Your task to perform on an android device: check battery use Image 0: 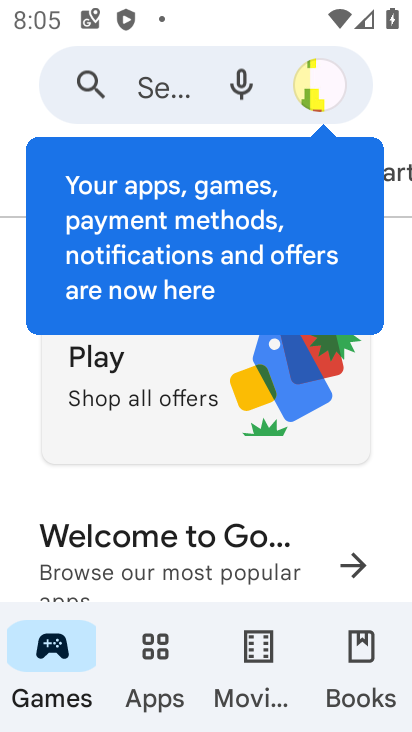
Step 0: press back button
Your task to perform on an android device: check battery use Image 1: 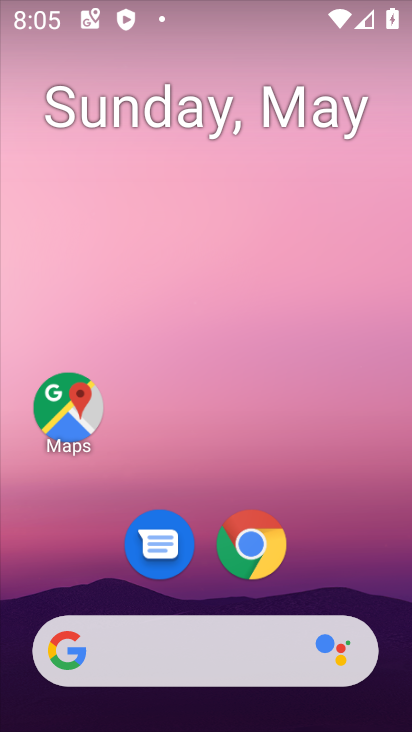
Step 1: drag from (320, 569) to (282, 4)
Your task to perform on an android device: check battery use Image 2: 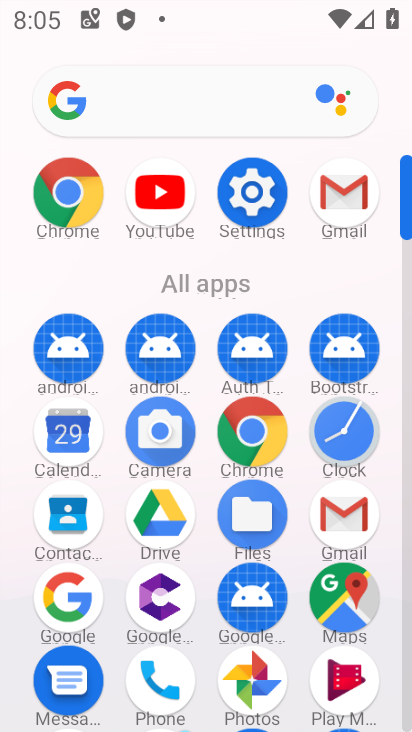
Step 2: drag from (5, 543) to (13, 184)
Your task to perform on an android device: check battery use Image 3: 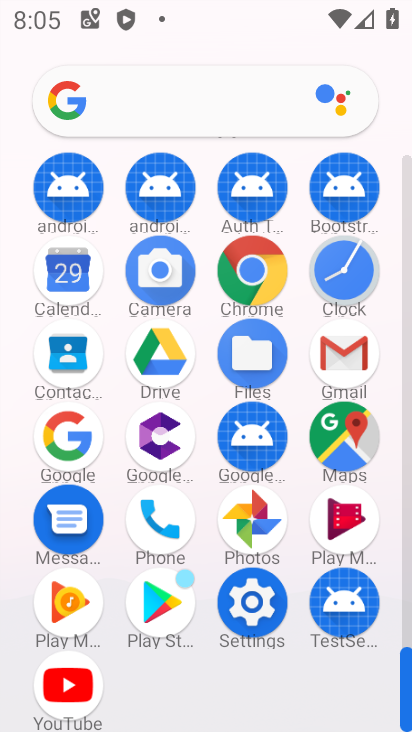
Step 3: click (249, 602)
Your task to perform on an android device: check battery use Image 4: 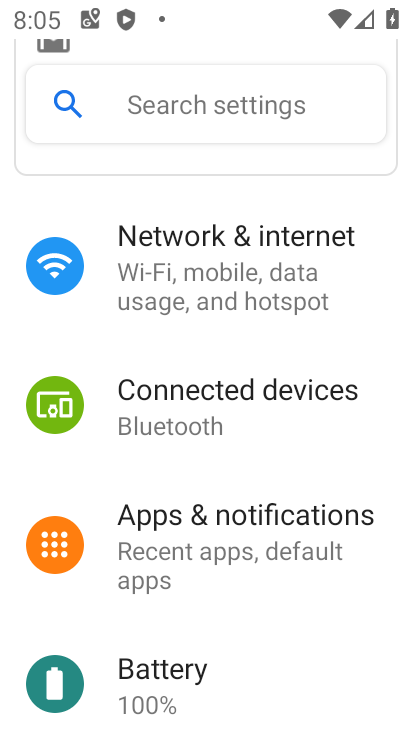
Step 4: drag from (300, 631) to (335, 157)
Your task to perform on an android device: check battery use Image 5: 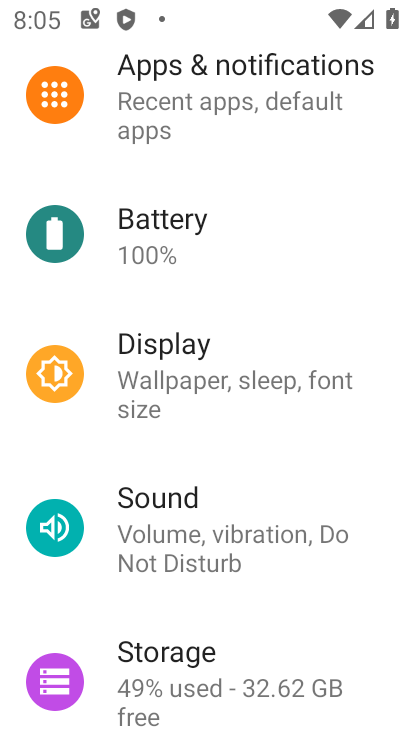
Step 5: drag from (278, 561) to (305, 204)
Your task to perform on an android device: check battery use Image 6: 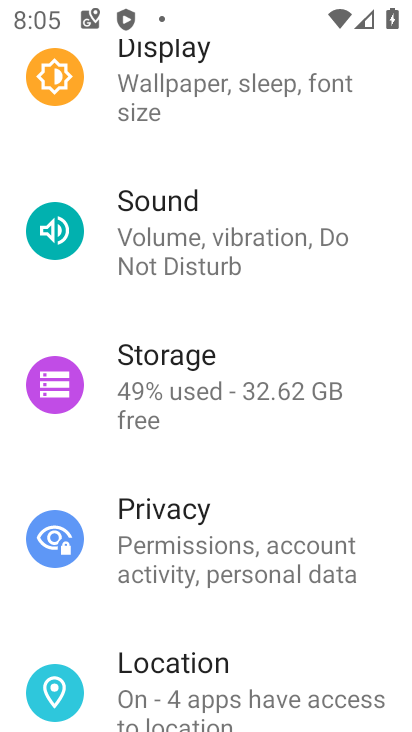
Step 6: drag from (237, 166) to (235, 606)
Your task to perform on an android device: check battery use Image 7: 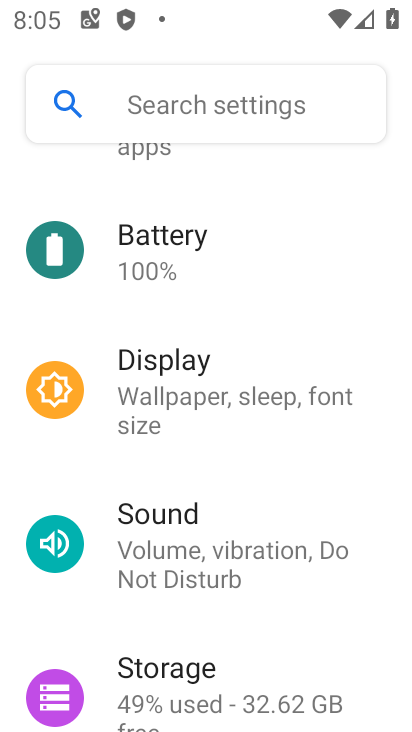
Step 7: click (174, 241)
Your task to perform on an android device: check battery use Image 8: 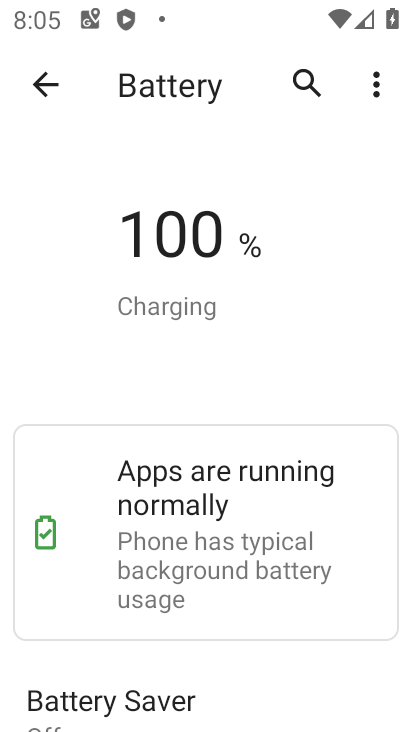
Step 8: task complete